Your task to perform on an android device: Go to Reddit.com Image 0: 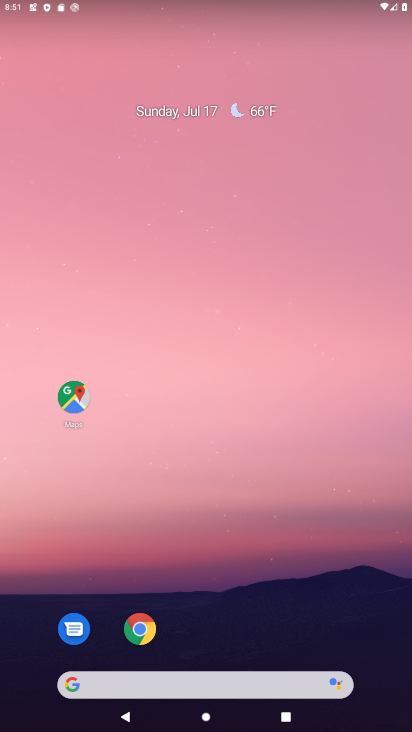
Step 0: click (135, 624)
Your task to perform on an android device: Go to Reddit.com Image 1: 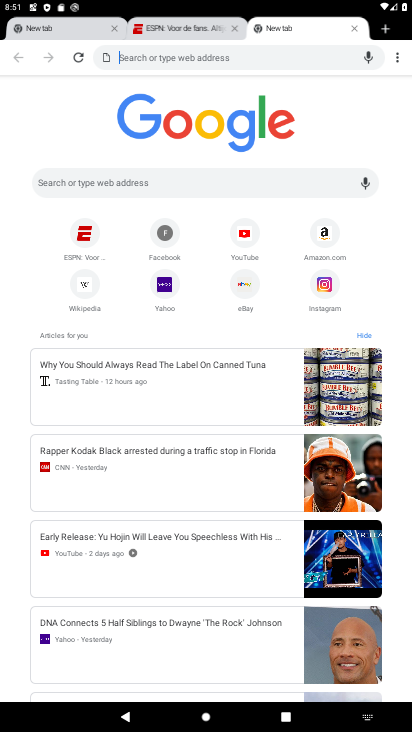
Step 1: click (80, 174)
Your task to perform on an android device: Go to Reddit.com Image 2: 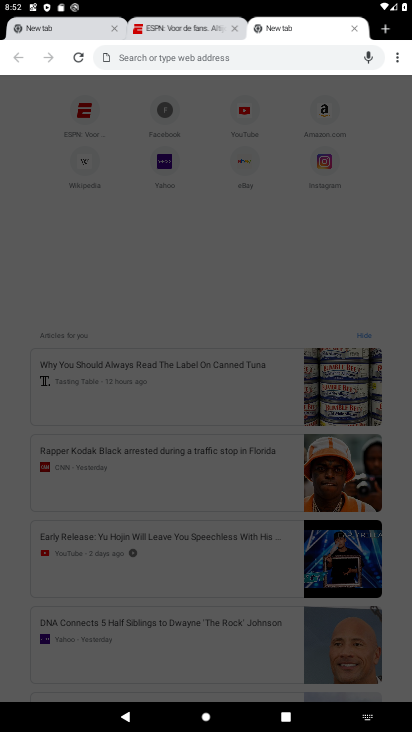
Step 2: type "reddit.com"
Your task to perform on an android device: Go to Reddit.com Image 3: 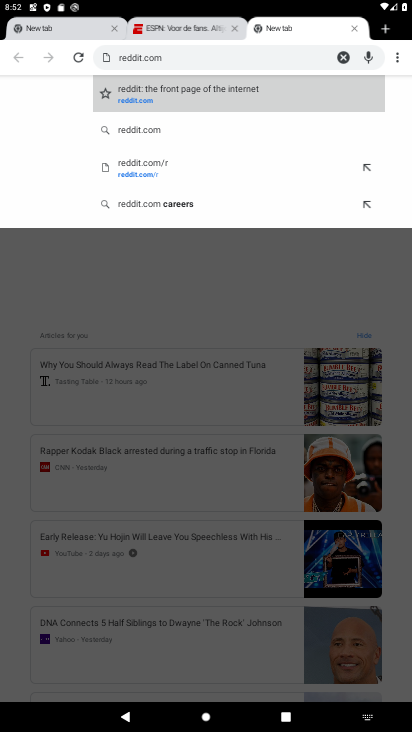
Step 3: click (181, 94)
Your task to perform on an android device: Go to Reddit.com Image 4: 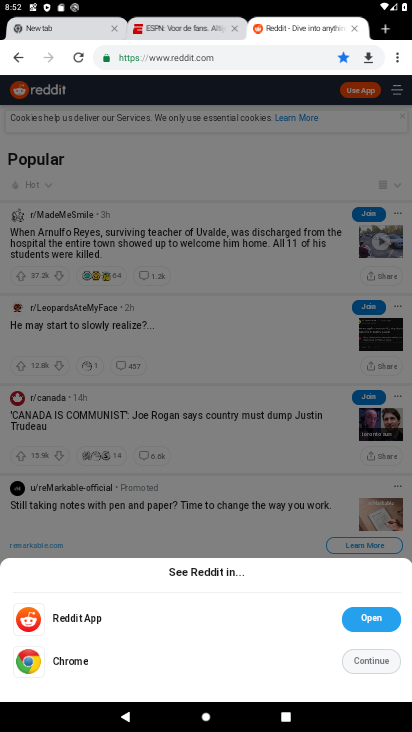
Step 4: click (379, 658)
Your task to perform on an android device: Go to Reddit.com Image 5: 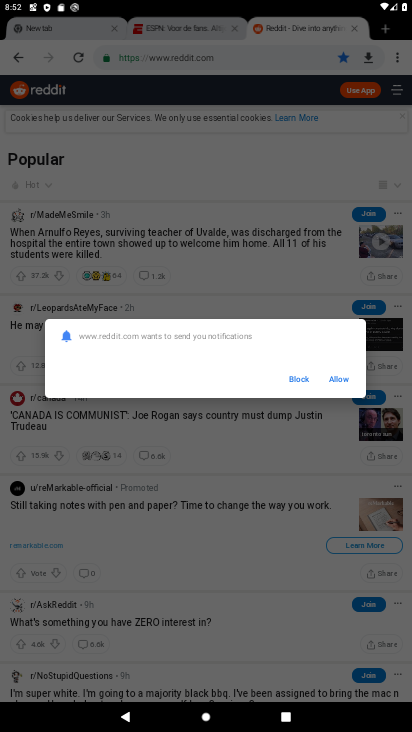
Step 5: click (340, 381)
Your task to perform on an android device: Go to Reddit.com Image 6: 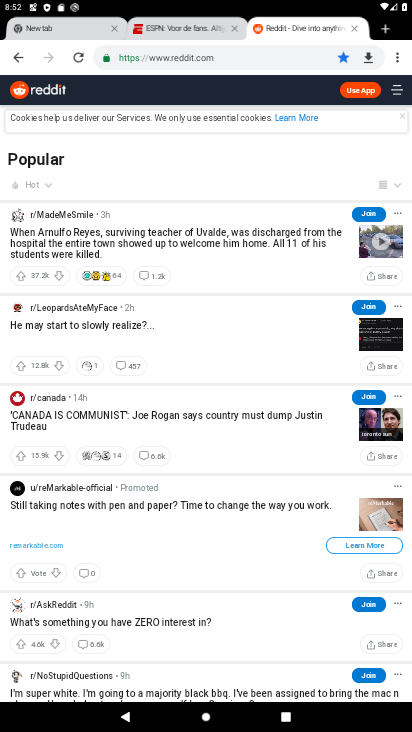
Step 6: task complete